Your task to perform on an android device: Search for "macbook pro 13 inch" on target, select the first entry, add it to the cart, then select checkout. Image 0: 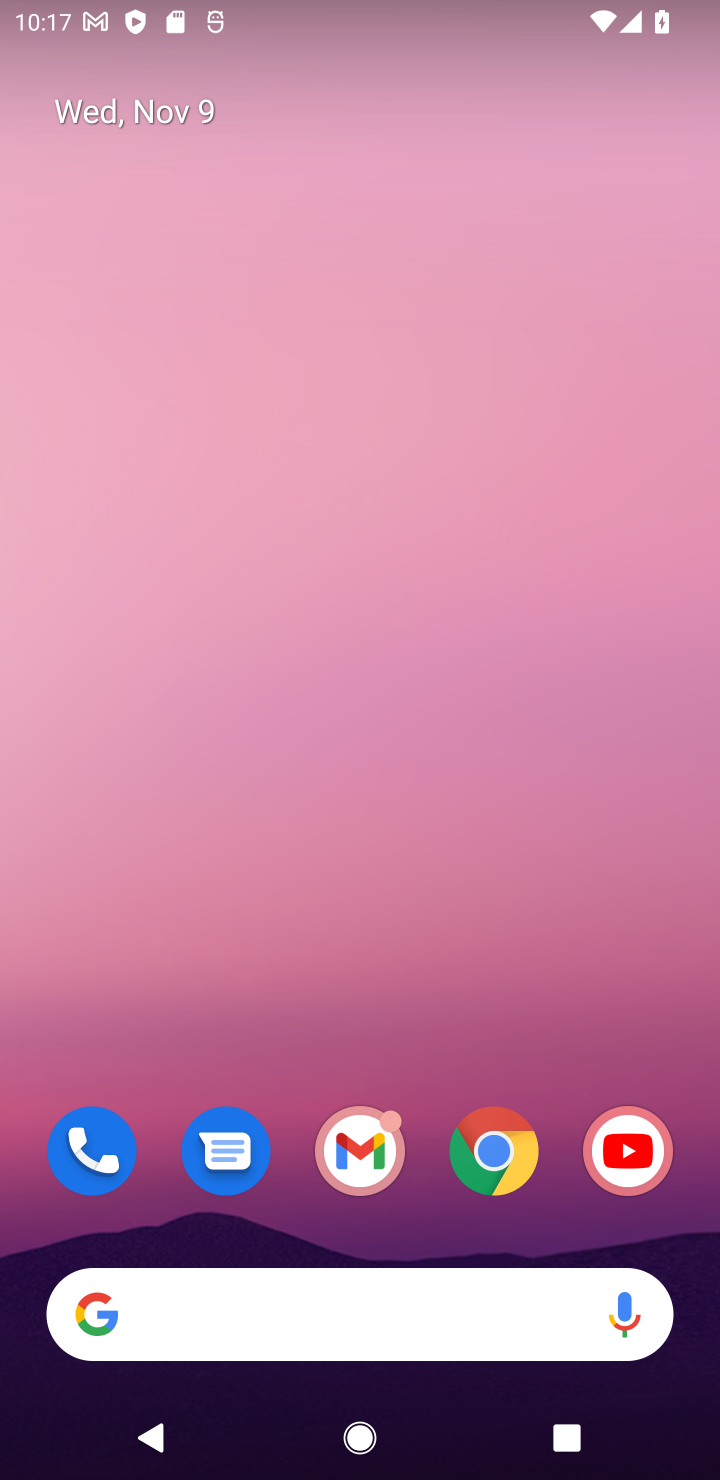
Step 0: click (516, 1143)
Your task to perform on an android device: Search for "macbook pro 13 inch" on target, select the first entry, add it to the cart, then select checkout. Image 1: 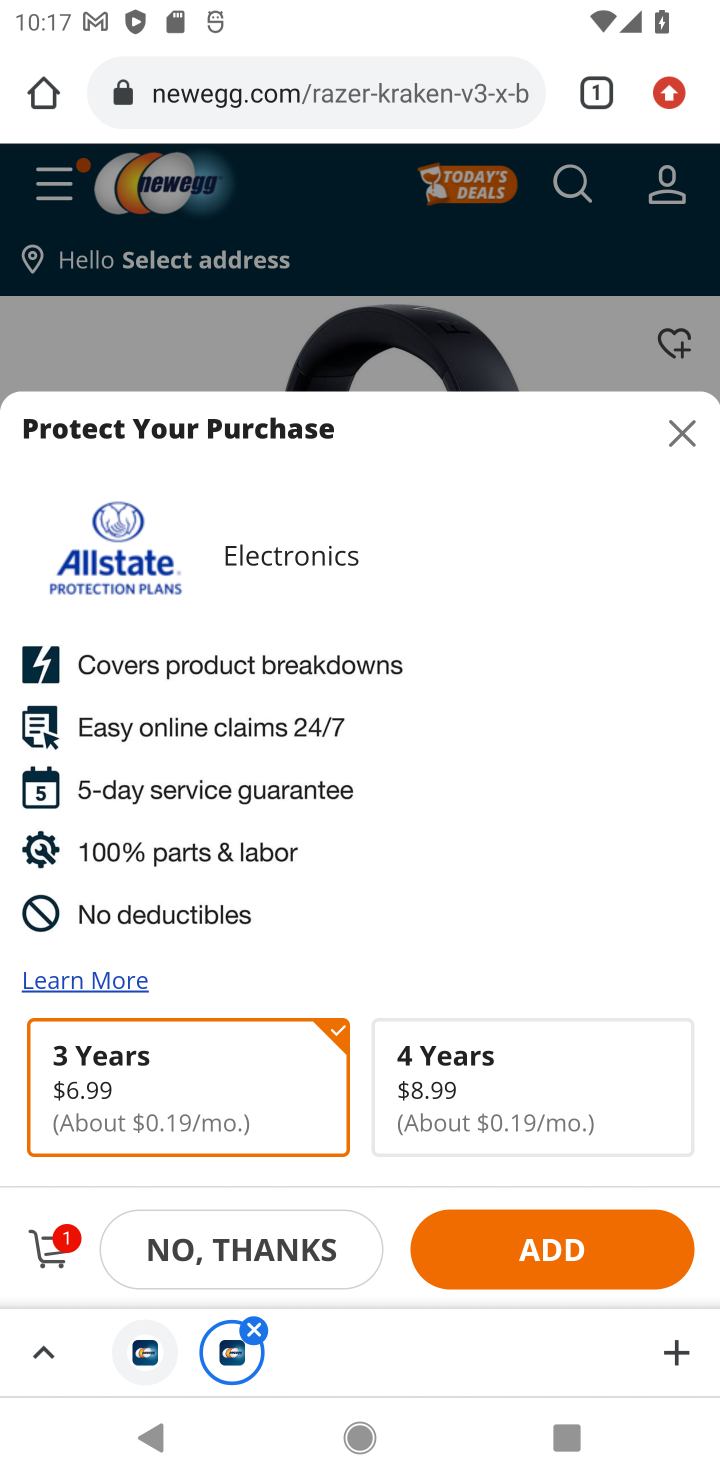
Step 1: click (328, 84)
Your task to perform on an android device: Search for "macbook pro 13 inch" on target, select the first entry, add it to the cart, then select checkout. Image 2: 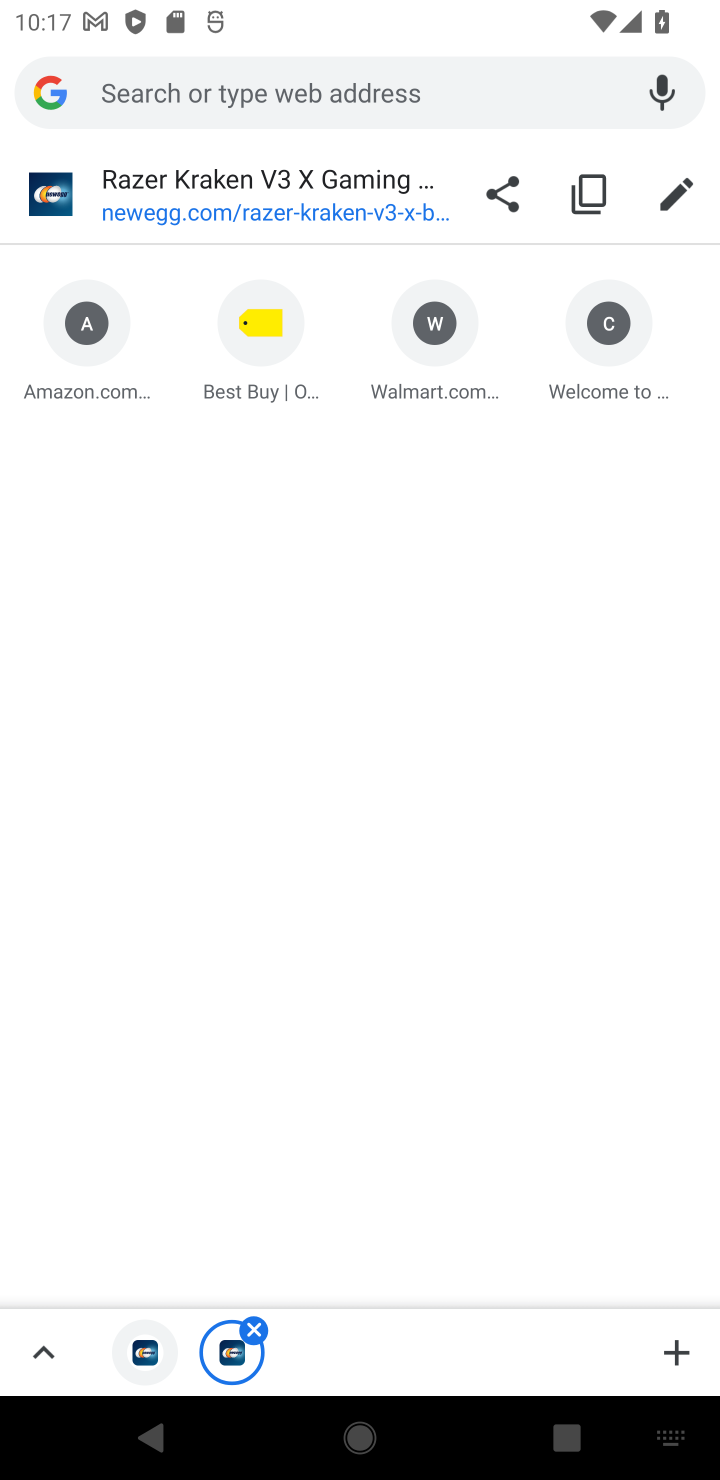
Step 2: press enter
Your task to perform on an android device: Search for "macbook pro 13 inch" on target, select the first entry, add it to the cart, then select checkout. Image 3: 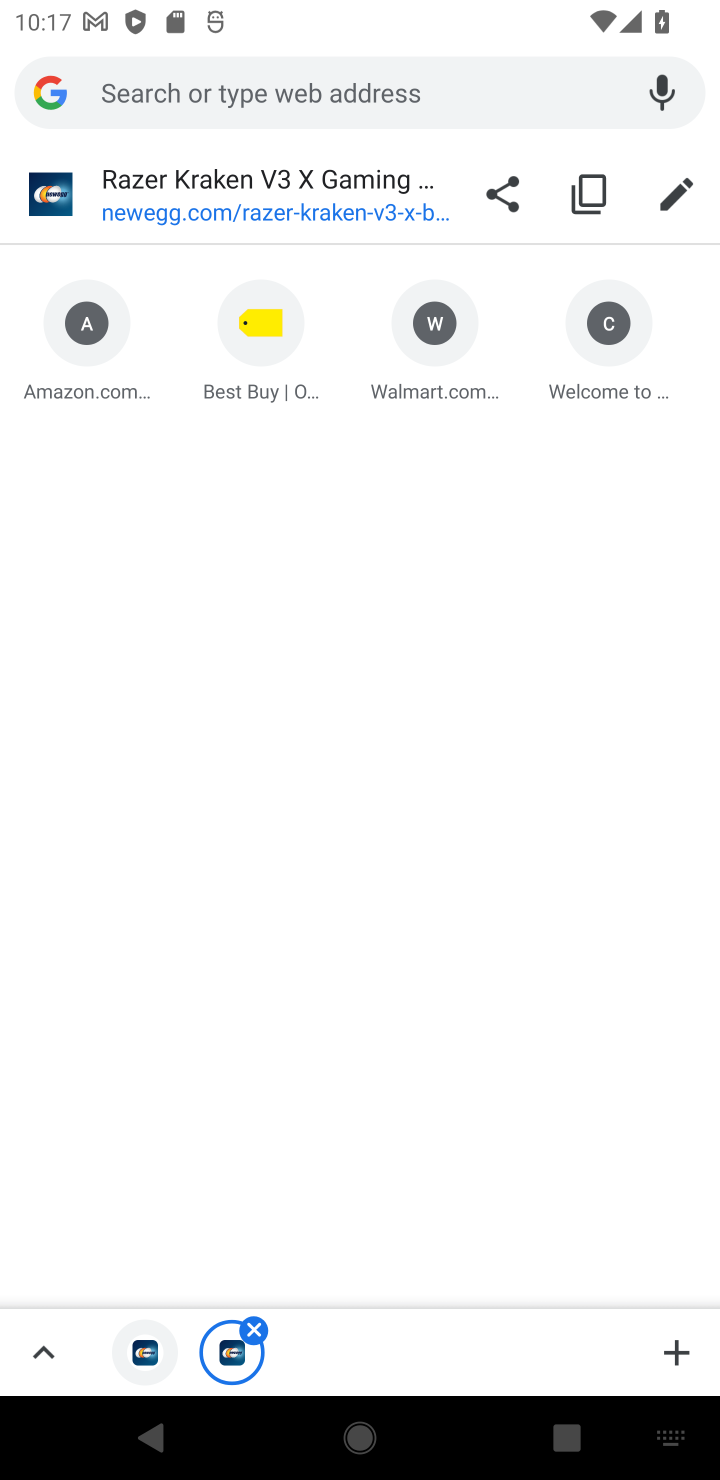
Step 3: type "target"
Your task to perform on an android device: Search for "macbook pro 13 inch" on target, select the first entry, add it to the cart, then select checkout. Image 4: 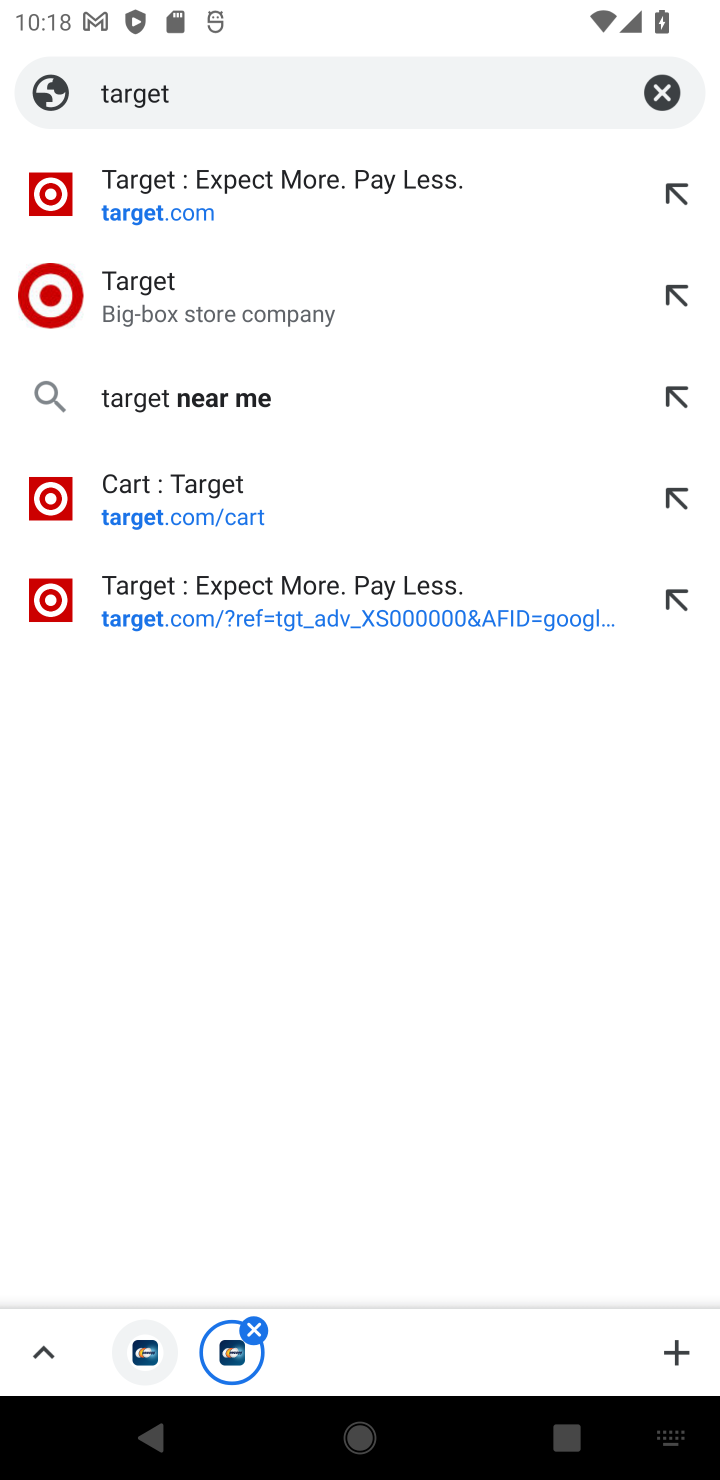
Step 4: click (200, 292)
Your task to perform on an android device: Search for "macbook pro 13 inch" on target, select the first entry, add it to the cart, then select checkout. Image 5: 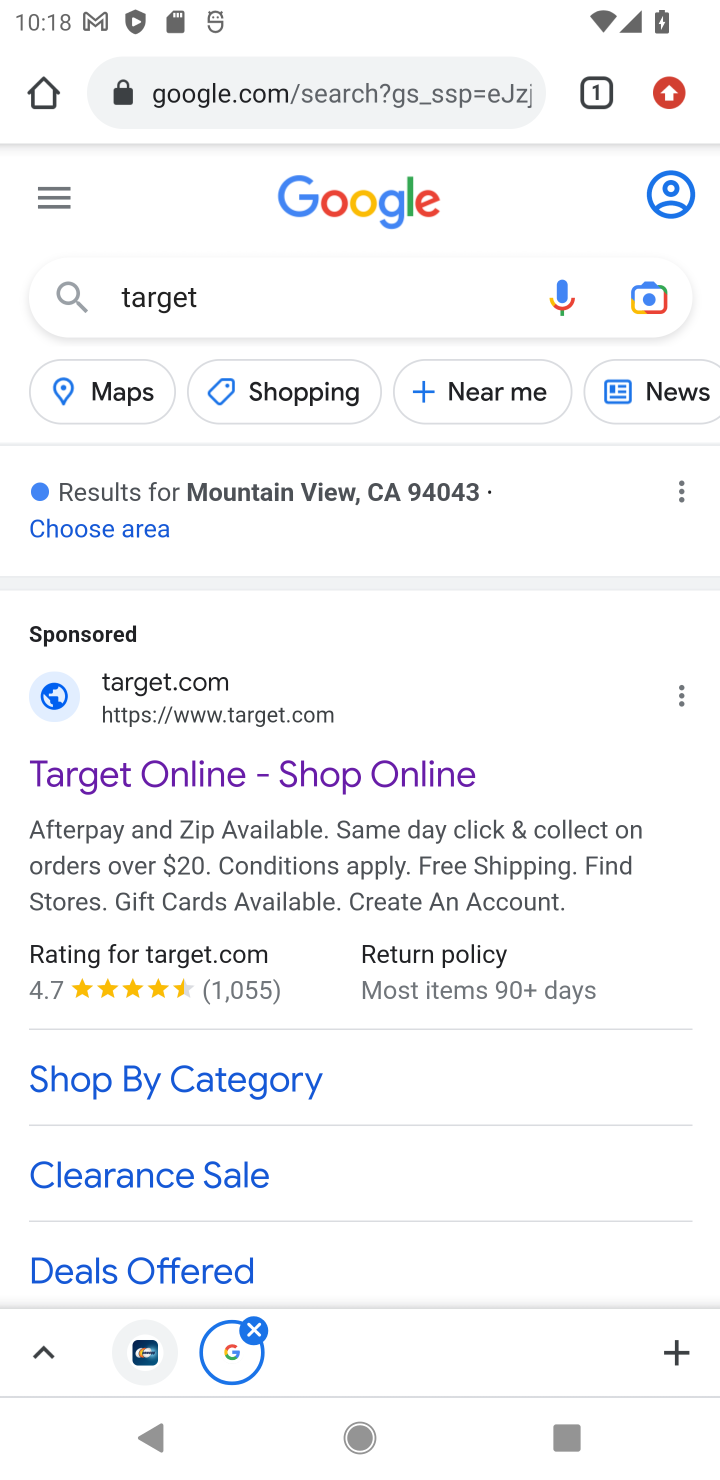
Step 5: click (259, 704)
Your task to perform on an android device: Search for "macbook pro 13 inch" on target, select the first entry, add it to the cart, then select checkout. Image 6: 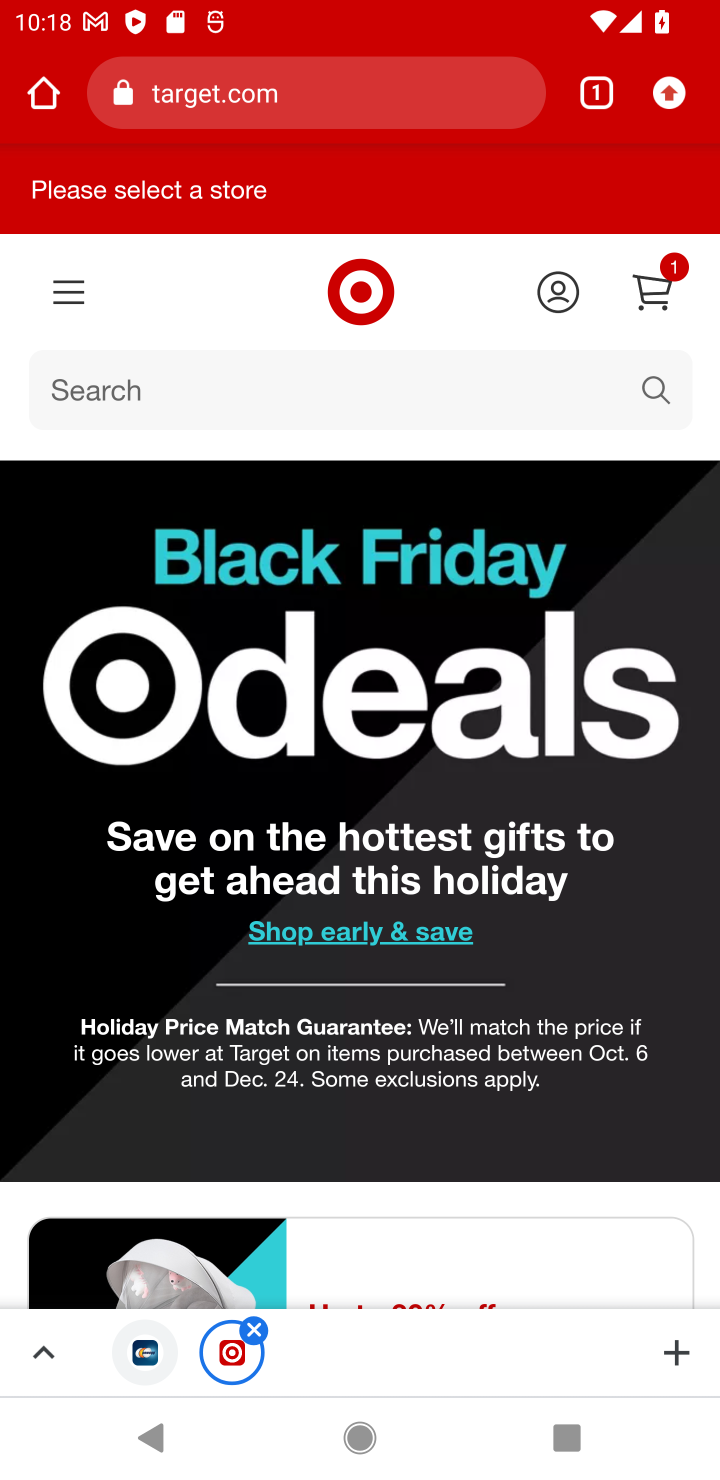
Step 6: click (528, 403)
Your task to perform on an android device: Search for "macbook pro 13 inch" on target, select the first entry, add it to the cart, then select checkout. Image 7: 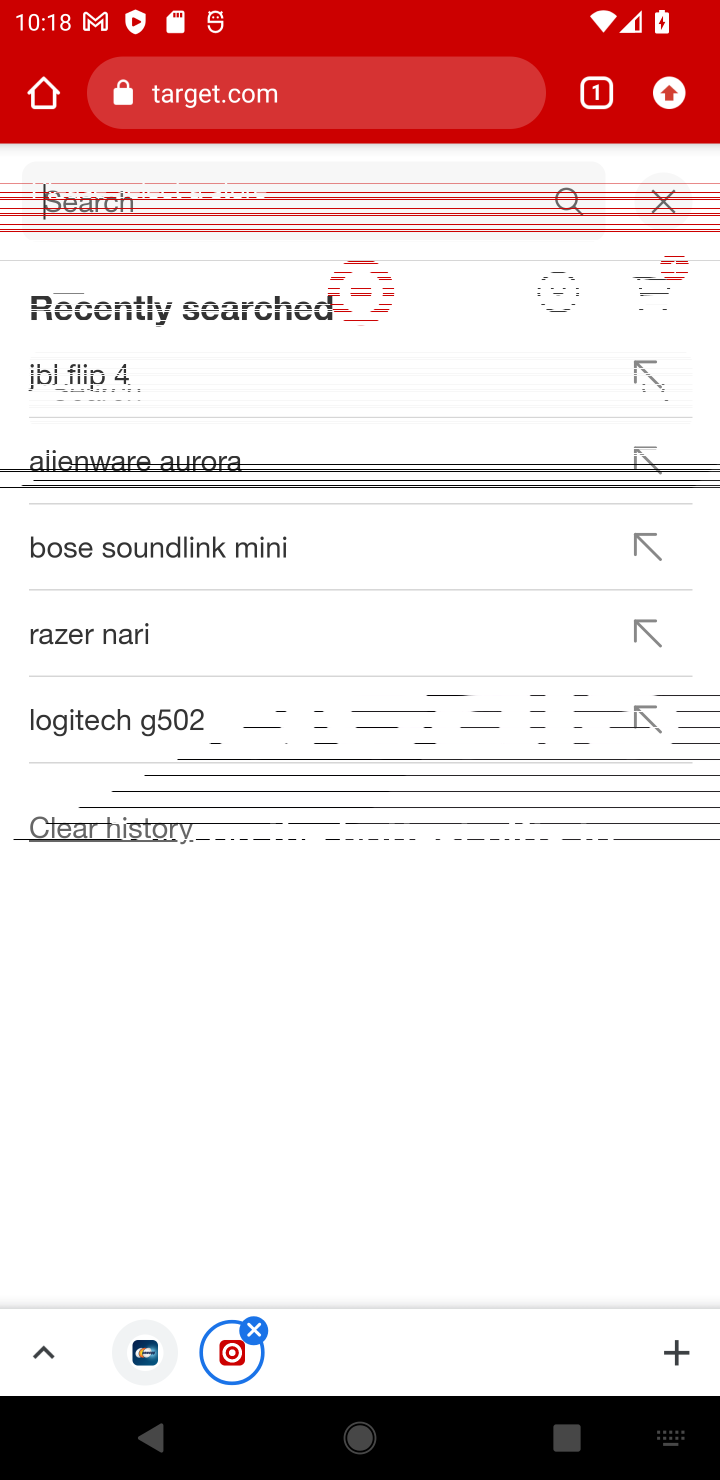
Step 7: press enter
Your task to perform on an android device: Search for "macbook pro 13 inch" on target, select the first entry, add it to the cart, then select checkout. Image 8: 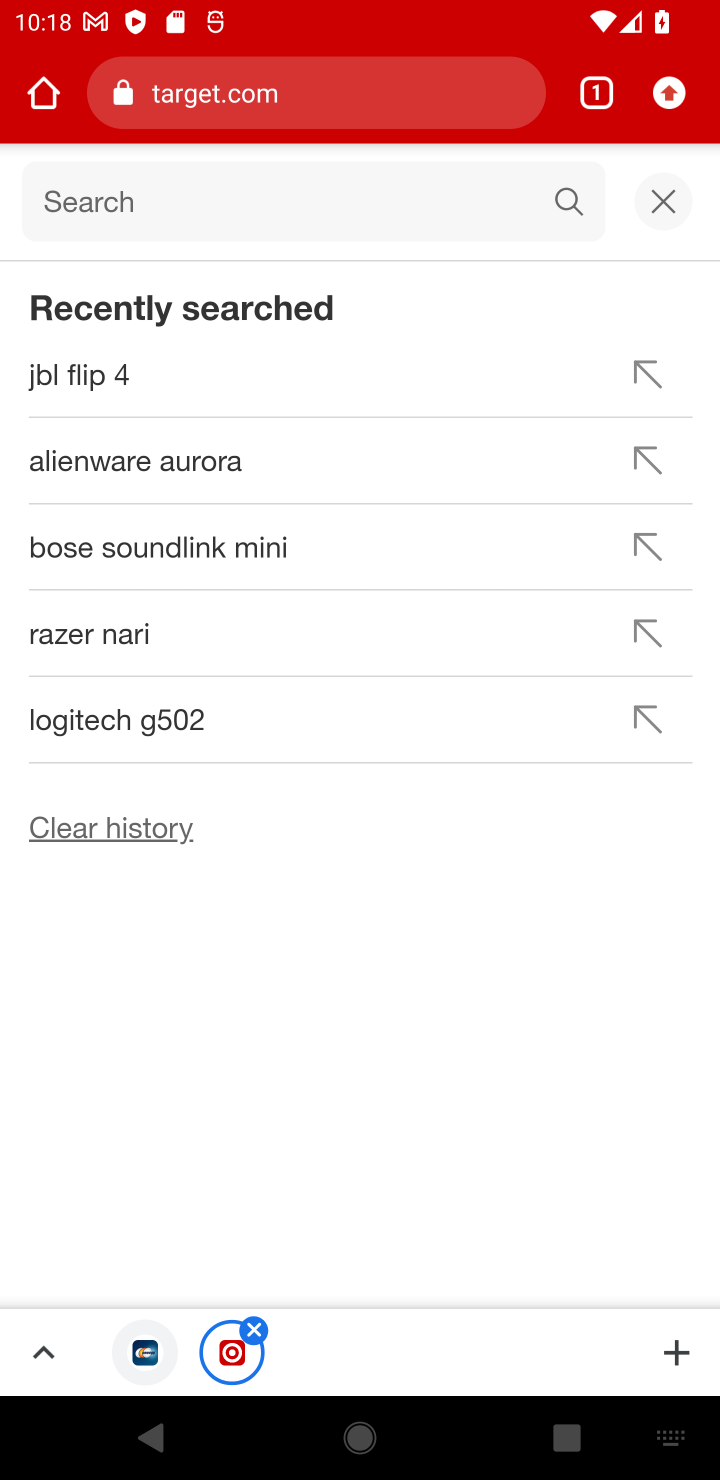
Step 8: type "macbook pro 13 inch"
Your task to perform on an android device: Search for "macbook pro 13 inch" on target, select the first entry, add it to the cart, then select checkout. Image 9: 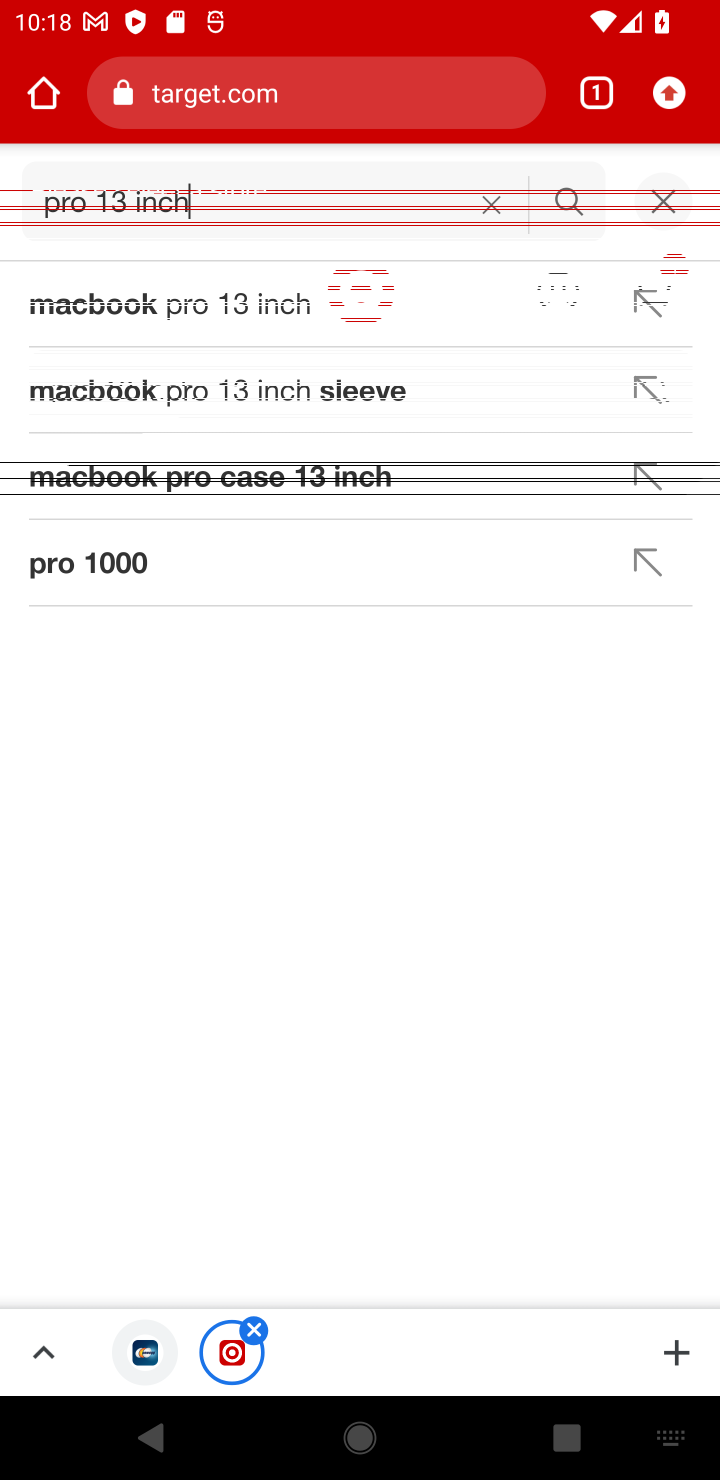
Step 9: click (284, 297)
Your task to perform on an android device: Search for "macbook pro 13 inch" on target, select the first entry, add it to the cart, then select checkout. Image 10: 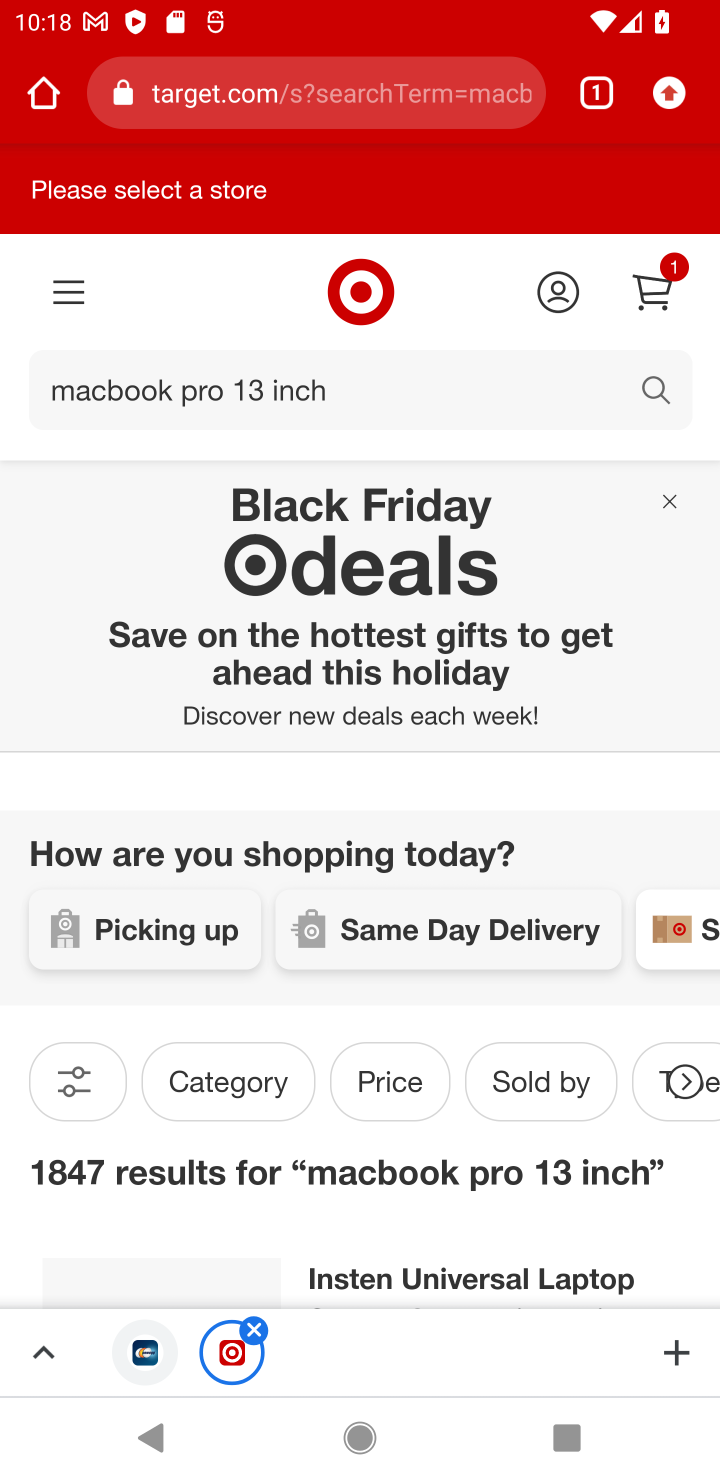
Step 10: task complete